Your task to perform on an android device: Open battery settings Image 0: 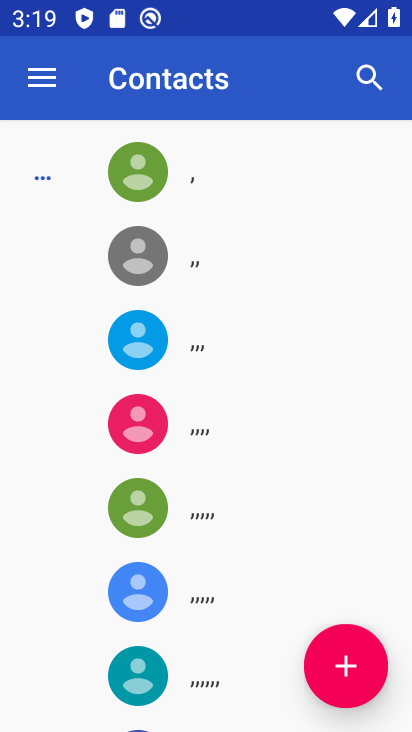
Step 0: press home button
Your task to perform on an android device: Open battery settings Image 1: 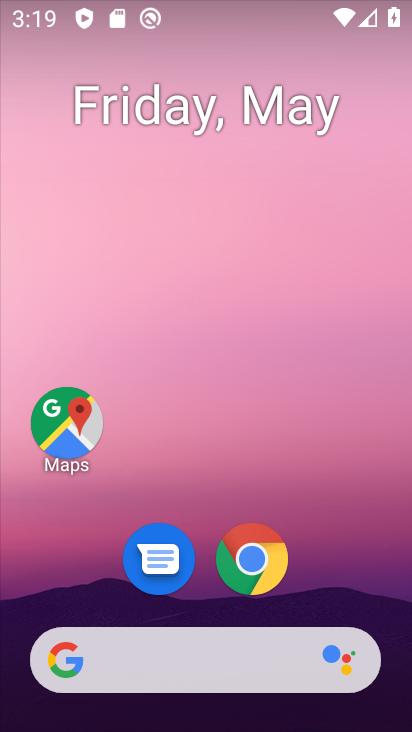
Step 1: drag from (367, 590) to (316, 23)
Your task to perform on an android device: Open battery settings Image 2: 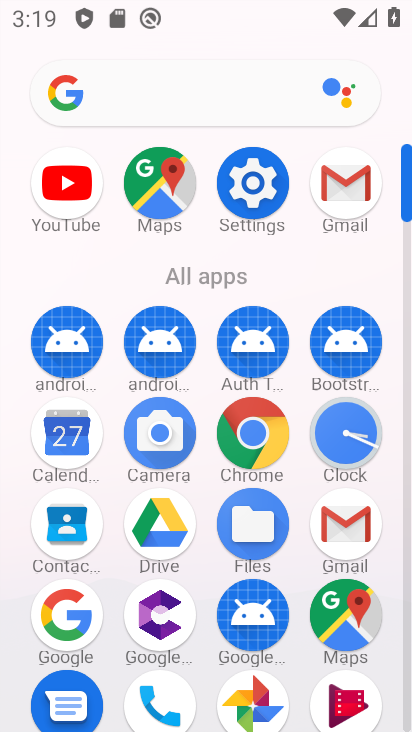
Step 2: click (259, 194)
Your task to perform on an android device: Open battery settings Image 3: 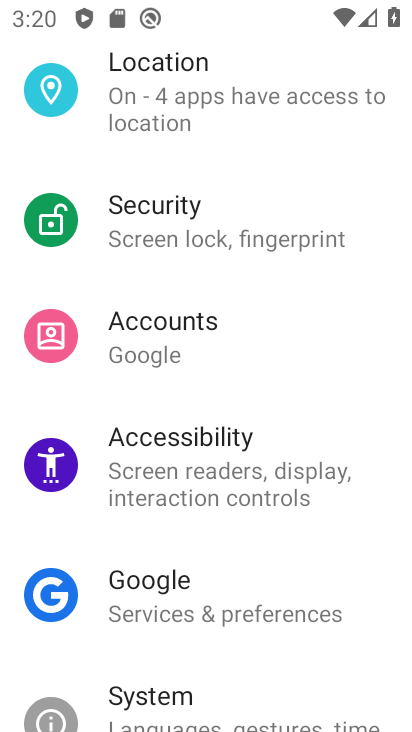
Step 3: drag from (220, 105) to (154, 459)
Your task to perform on an android device: Open battery settings Image 4: 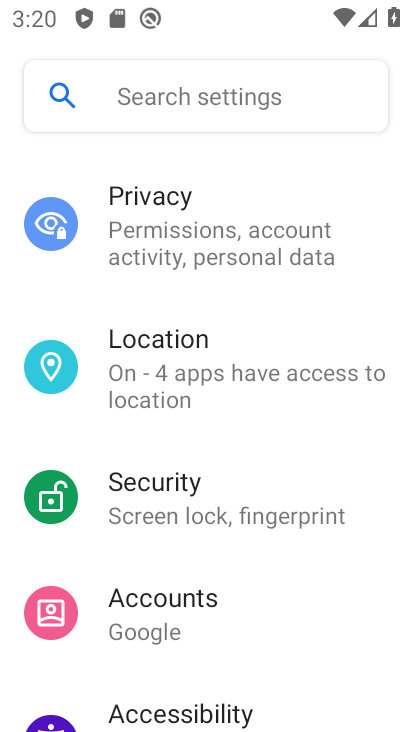
Step 4: drag from (138, 192) to (64, 731)
Your task to perform on an android device: Open battery settings Image 5: 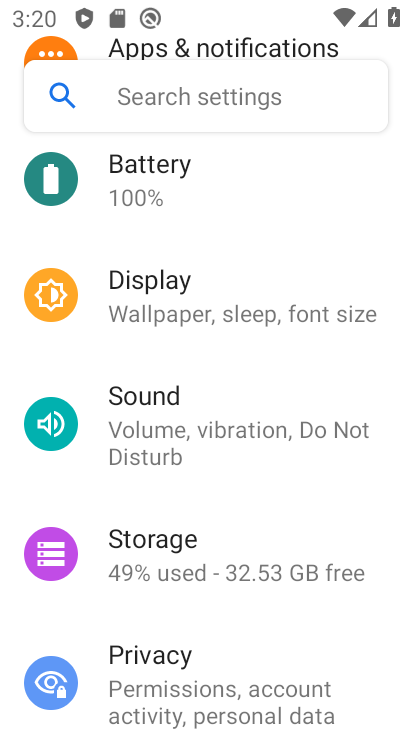
Step 5: click (187, 174)
Your task to perform on an android device: Open battery settings Image 6: 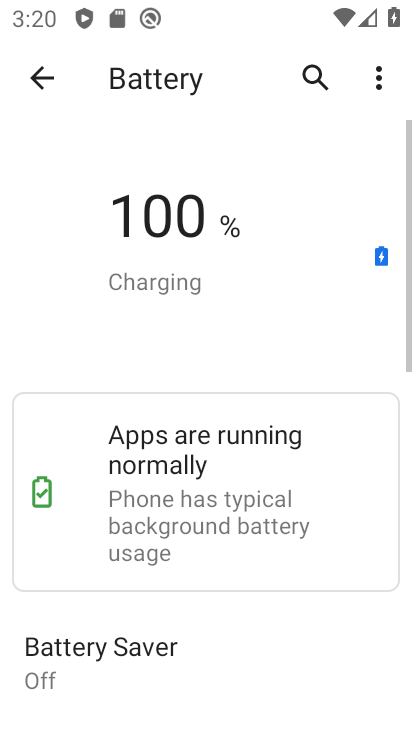
Step 6: task complete